Your task to perform on an android device: open app "Fetch Rewards" (install if not already installed) and go to login screen Image 0: 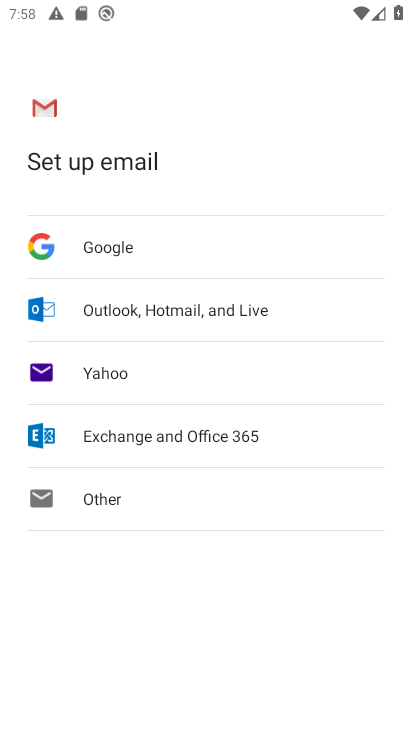
Step 0: press home button
Your task to perform on an android device: open app "Fetch Rewards" (install if not already installed) and go to login screen Image 1: 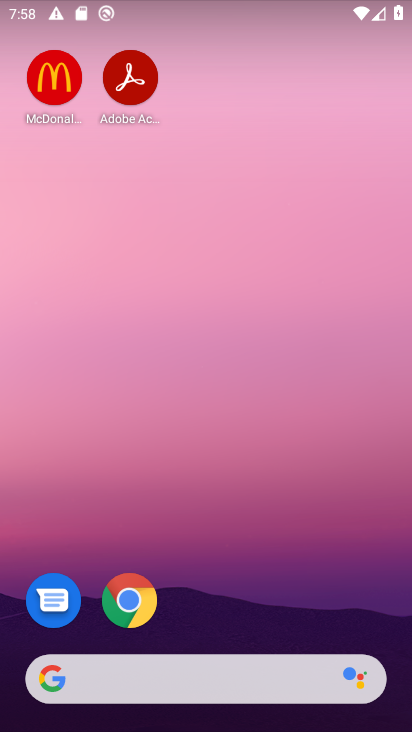
Step 1: drag from (177, 576) to (177, 159)
Your task to perform on an android device: open app "Fetch Rewards" (install if not already installed) and go to login screen Image 2: 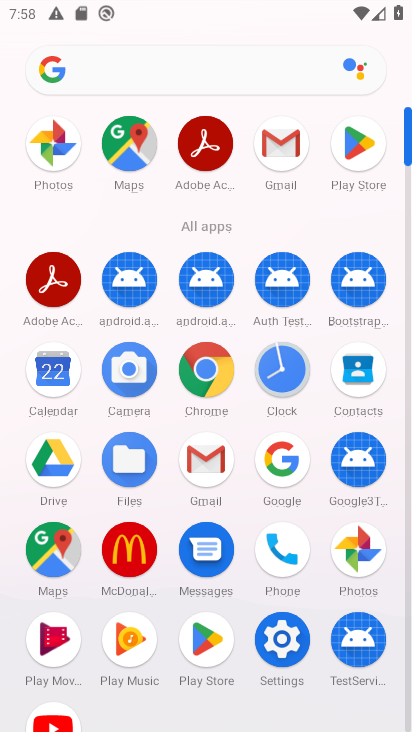
Step 2: click (348, 143)
Your task to perform on an android device: open app "Fetch Rewards" (install if not already installed) and go to login screen Image 3: 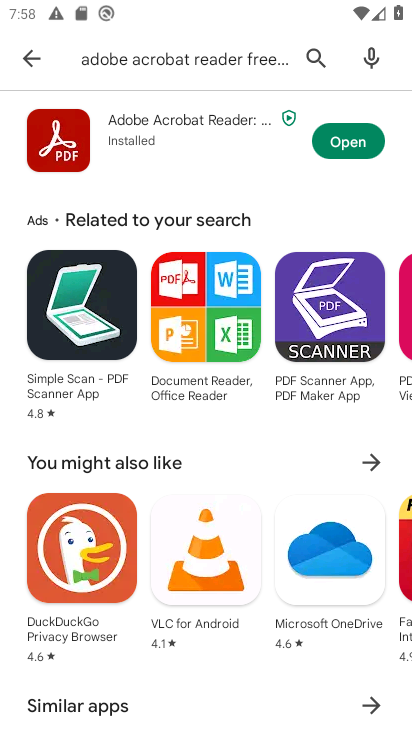
Step 3: click (316, 55)
Your task to perform on an android device: open app "Fetch Rewards" (install if not already installed) and go to login screen Image 4: 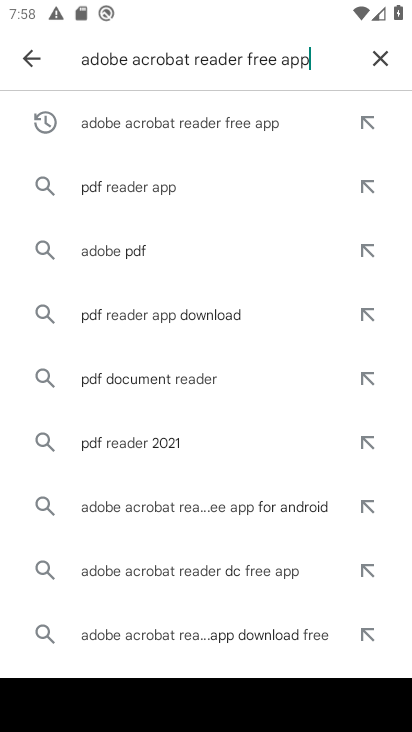
Step 4: click (374, 57)
Your task to perform on an android device: open app "Fetch Rewards" (install if not already installed) and go to login screen Image 5: 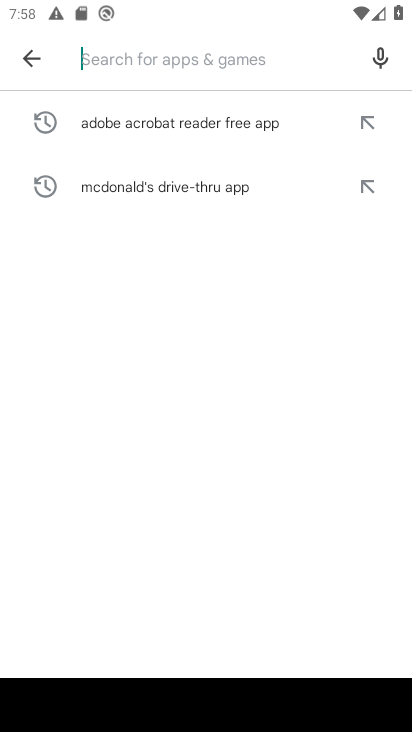
Step 5: type "Fetch Rewards"
Your task to perform on an android device: open app "Fetch Rewards" (install if not already installed) and go to login screen Image 6: 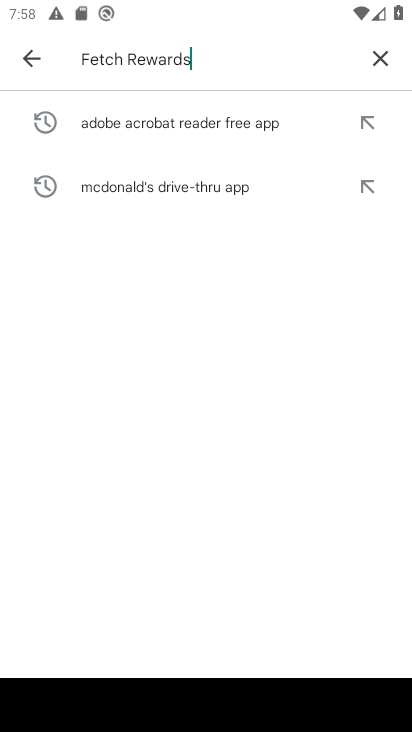
Step 6: type ""
Your task to perform on an android device: open app "Fetch Rewards" (install if not already installed) and go to login screen Image 7: 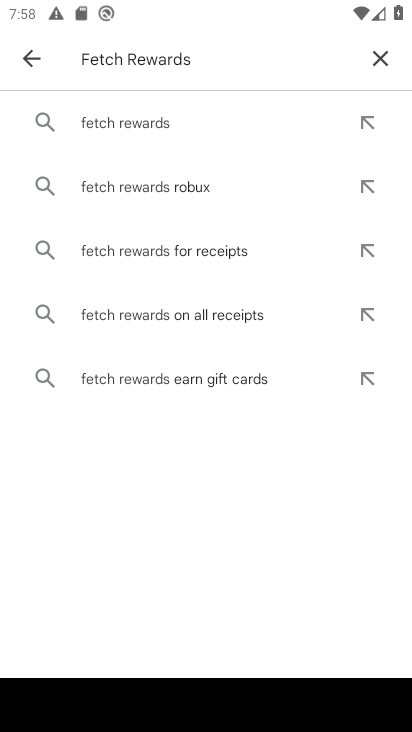
Step 7: click (160, 120)
Your task to perform on an android device: open app "Fetch Rewards" (install if not already installed) and go to login screen Image 8: 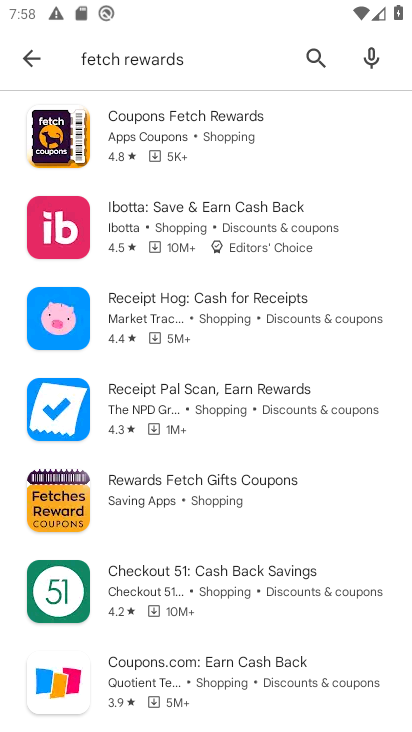
Step 8: task complete